Your task to perform on an android device: Open settings on Google Maps Image 0: 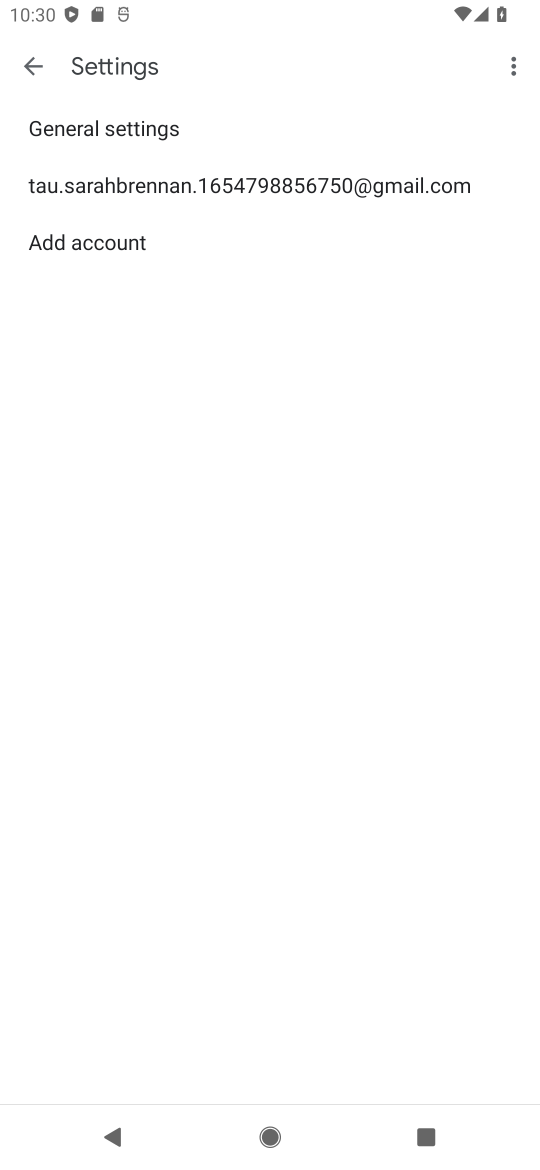
Step 0: press home button
Your task to perform on an android device: Open settings on Google Maps Image 1: 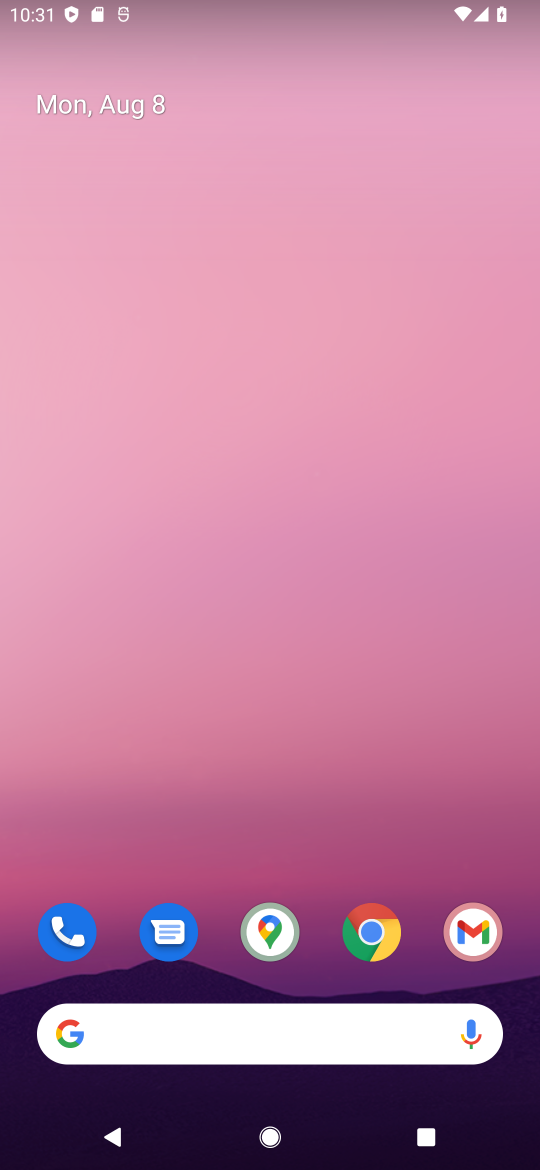
Step 1: click (270, 909)
Your task to perform on an android device: Open settings on Google Maps Image 2: 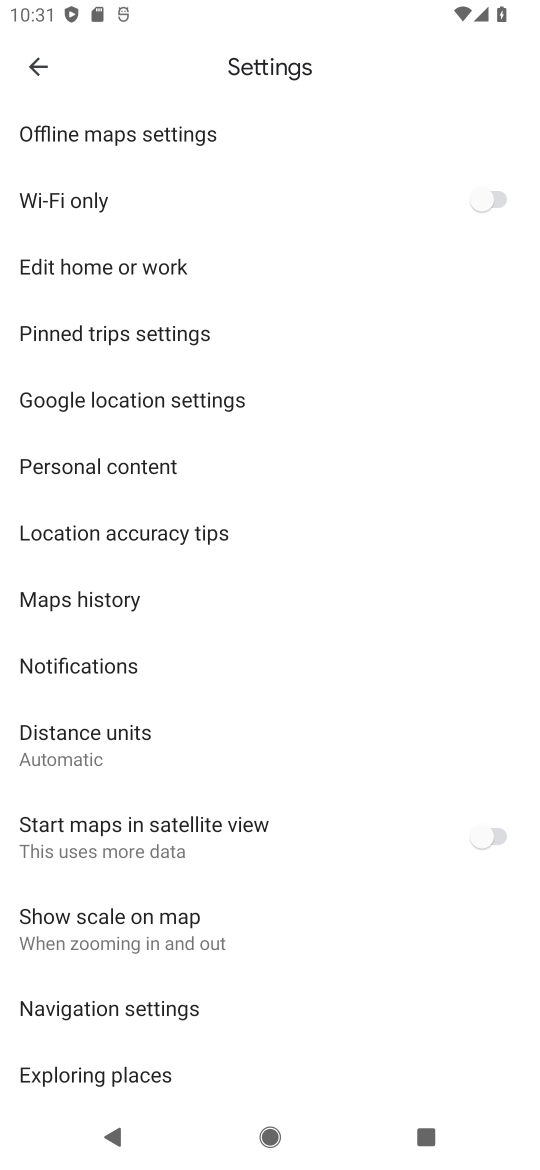
Step 2: task complete